Your task to perform on an android device: toggle airplane mode Image 0: 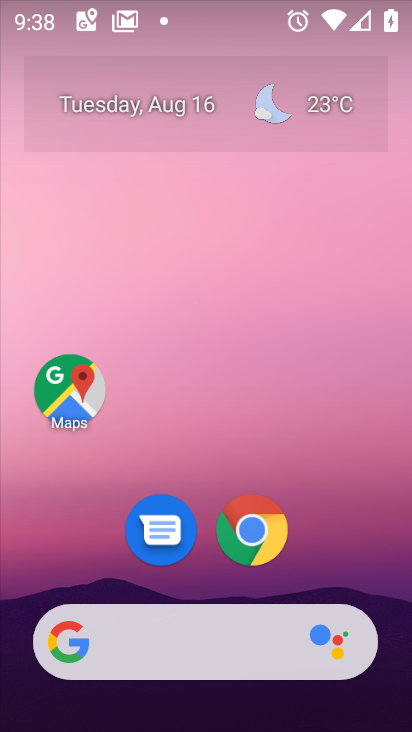
Step 0: drag from (351, 579) to (298, 140)
Your task to perform on an android device: toggle airplane mode Image 1: 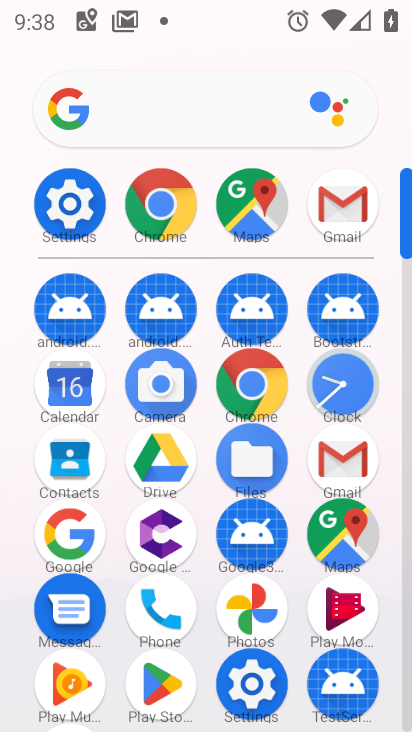
Step 1: click (255, 673)
Your task to perform on an android device: toggle airplane mode Image 2: 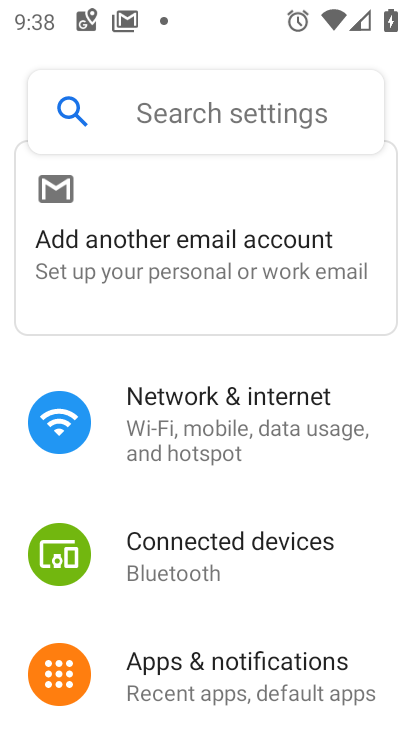
Step 2: click (192, 439)
Your task to perform on an android device: toggle airplane mode Image 3: 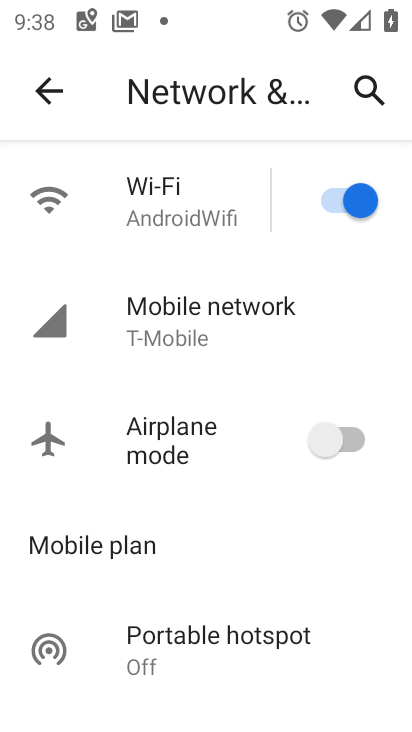
Step 3: click (314, 435)
Your task to perform on an android device: toggle airplane mode Image 4: 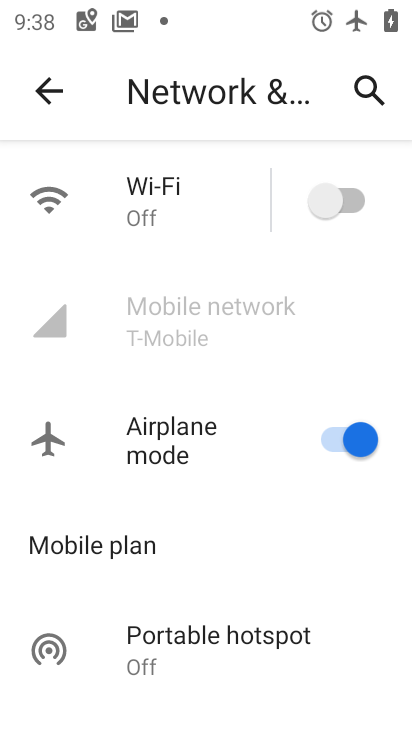
Step 4: task complete